Your task to perform on an android device: Open notification settings Image 0: 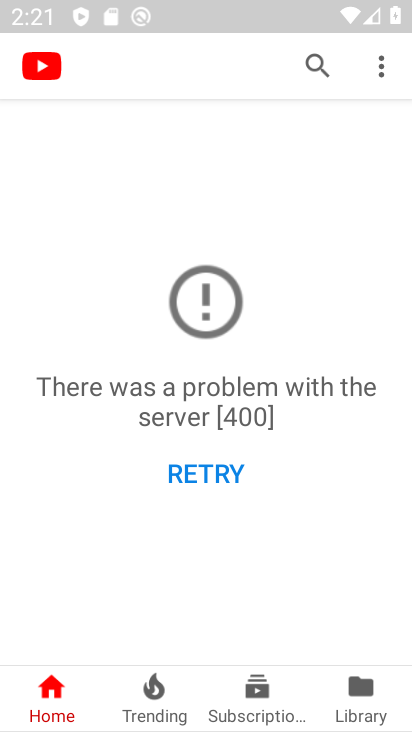
Step 0: press home button
Your task to perform on an android device: Open notification settings Image 1: 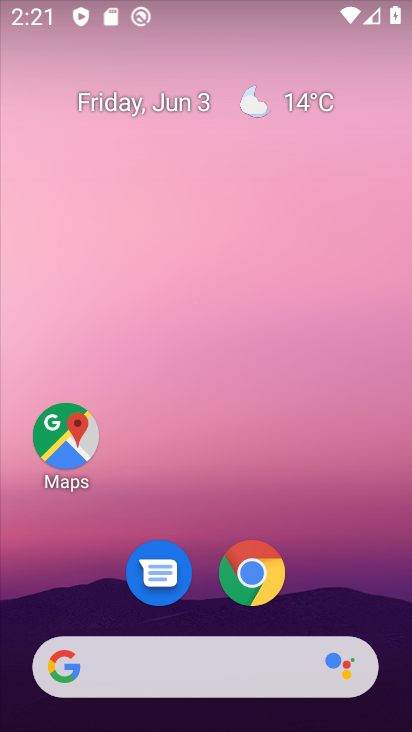
Step 1: drag from (264, 652) to (262, 135)
Your task to perform on an android device: Open notification settings Image 2: 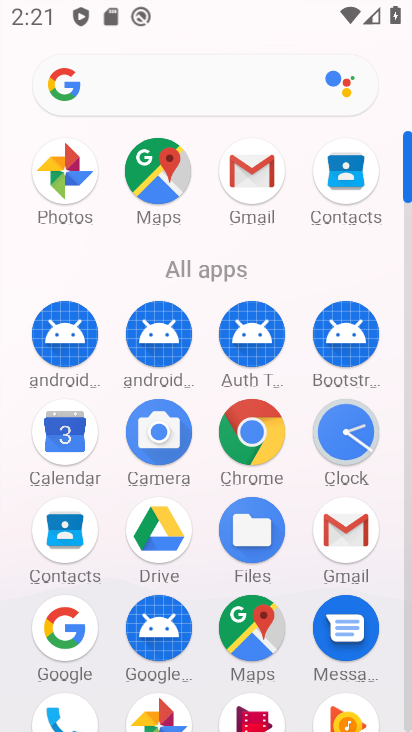
Step 2: drag from (290, 607) to (284, 147)
Your task to perform on an android device: Open notification settings Image 3: 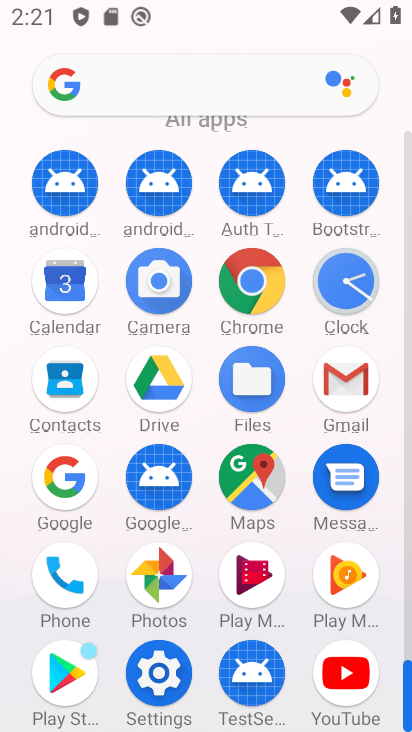
Step 3: click (163, 675)
Your task to perform on an android device: Open notification settings Image 4: 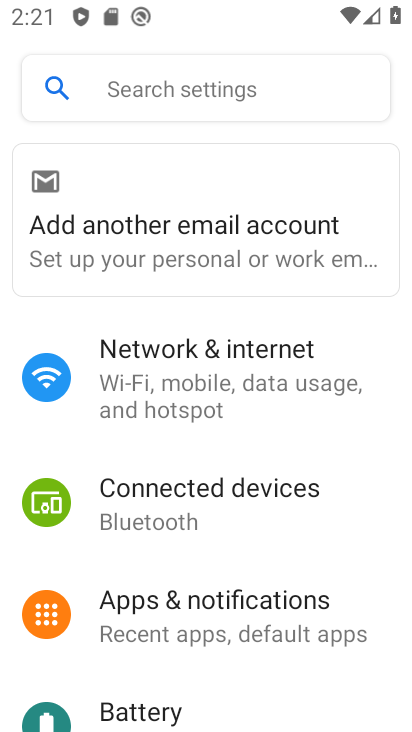
Step 4: click (265, 630)
Your task to perform on an android device: Open notification settings Image 5: 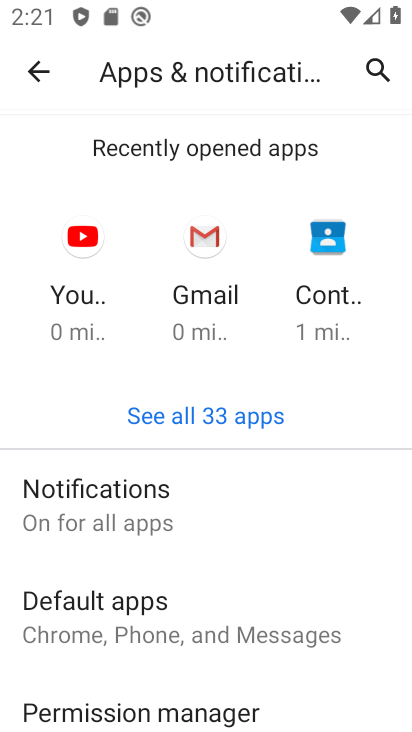
Step 5: click (185, 470)
Your task to perform on an android device: Open notification settings Image 6: 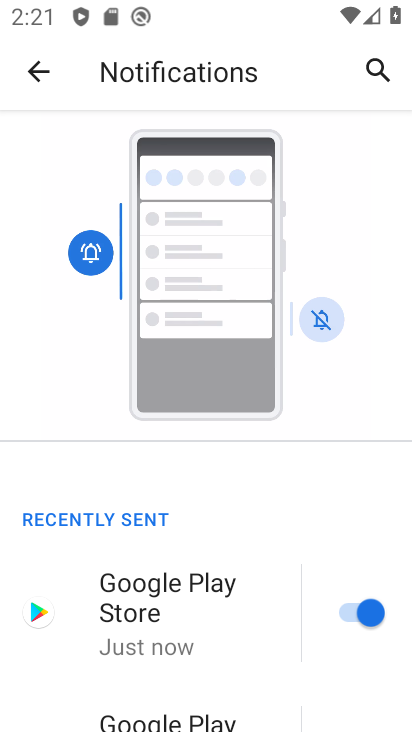
Step 6: task complete